Your task to perform on an android device: Search for hotels in Washington DC Image 0: 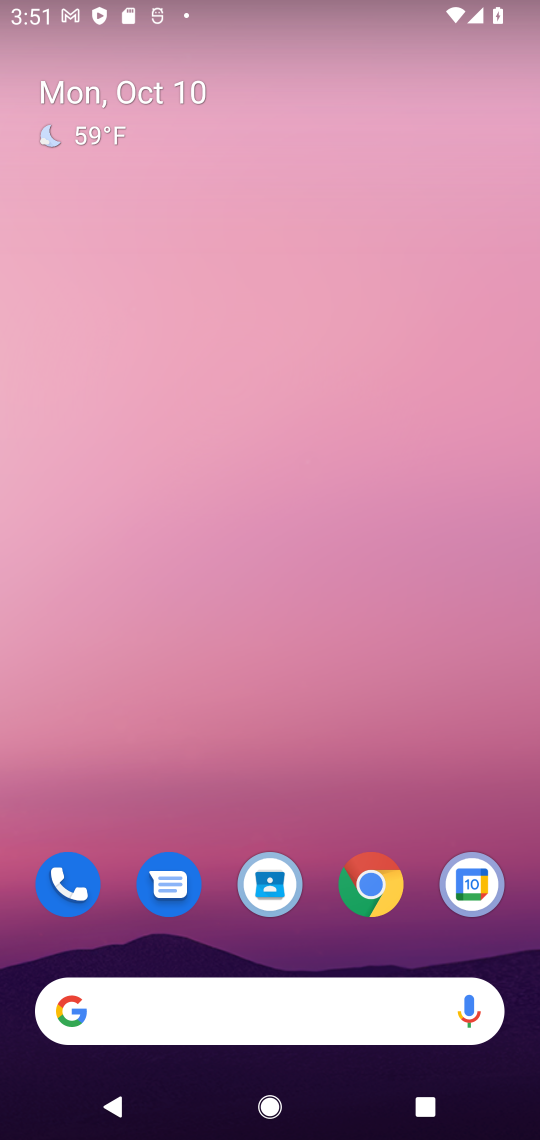
Step 0: click (366, 896)
Your task to perform on an android device: Search for hotels in Washington DC Image 1: 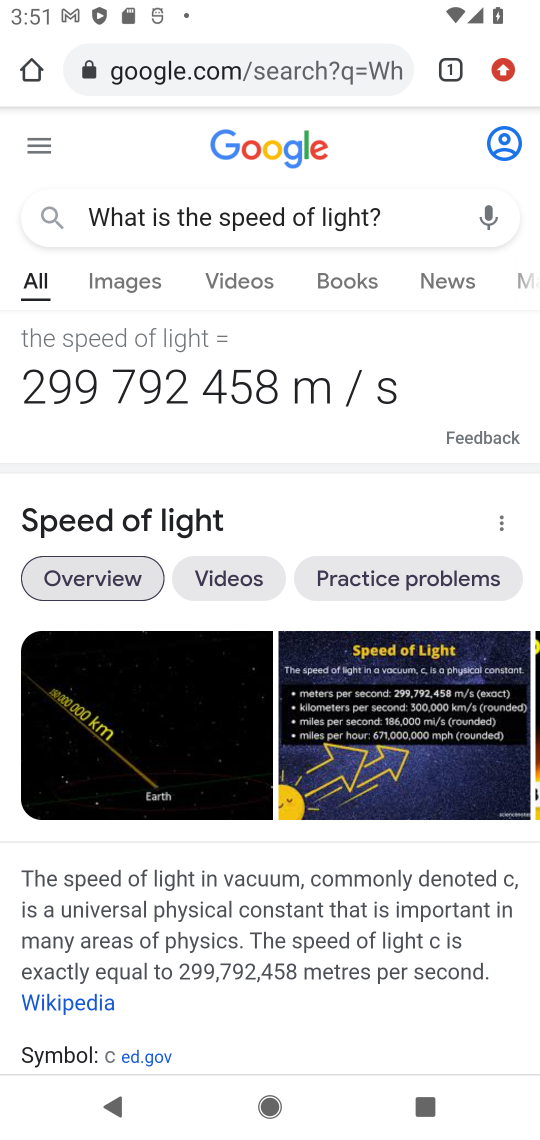
Step 1: click (203, 73)
Your task to perform on an android device: Search for hotels in Washington DC Image 2: 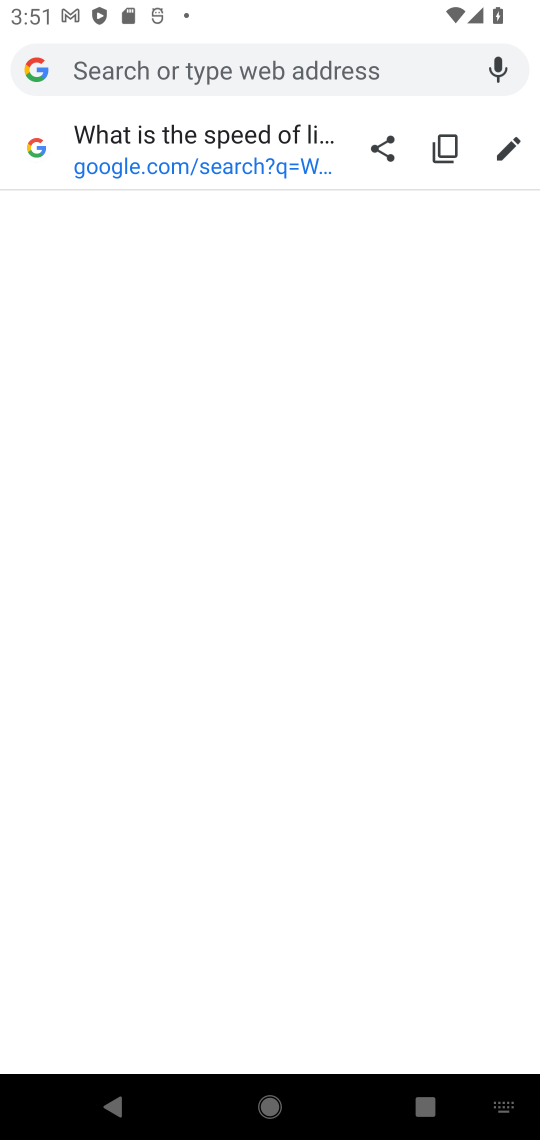
Step 2: type " hotels in Washington DC"
Your task to perform on an android device: Search for hotels in Washington DC Image 3: 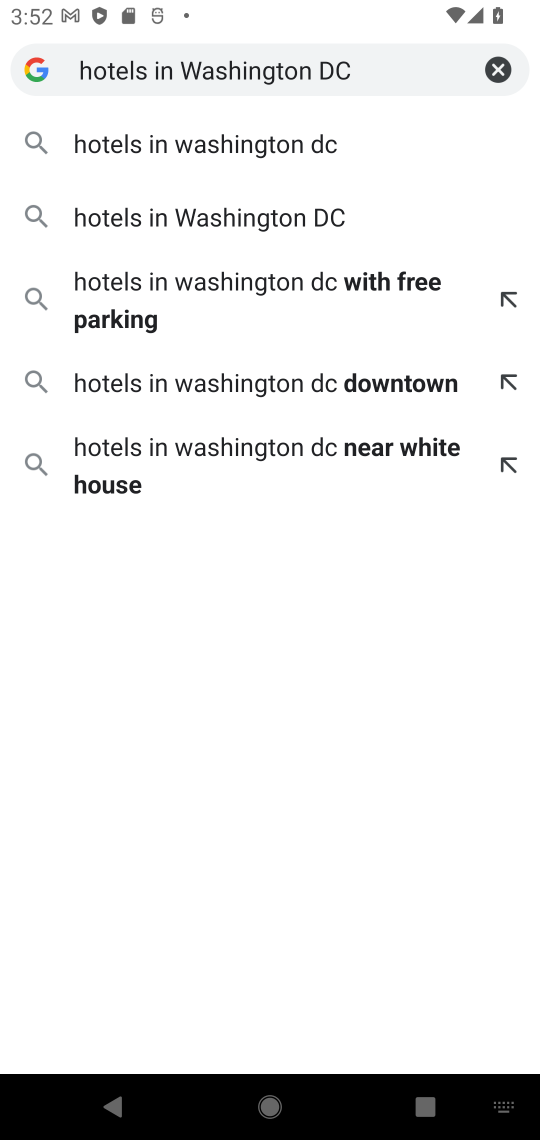
Step 3: click (136, 151)
Your task to perform on an android device: Search for hotels in Washington DC Image 4: 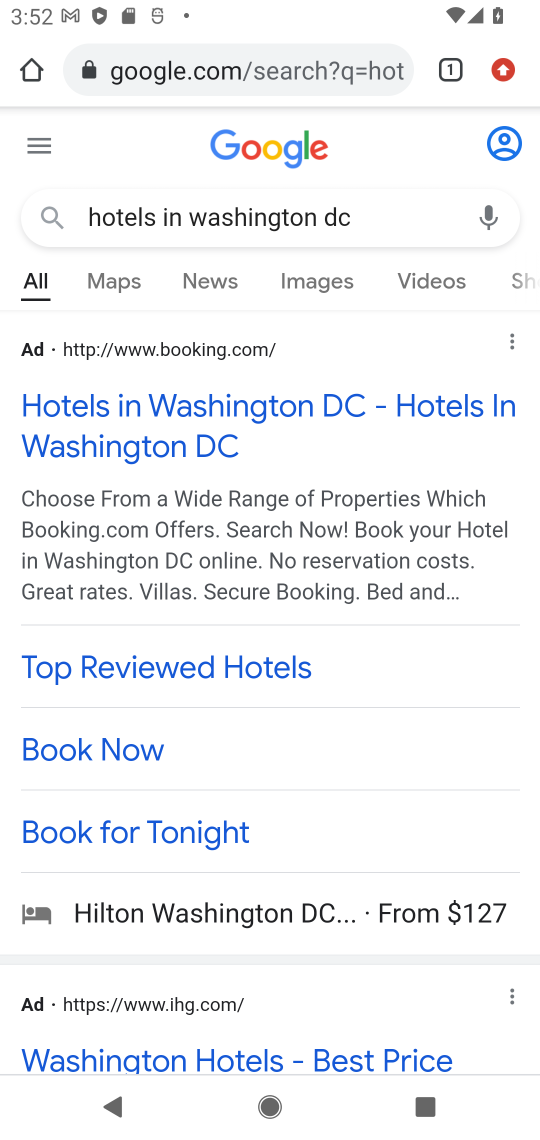
Step 4: click (136, 452)
Your task to perform on an android device: Search for hotels in Washington DC Image 5: 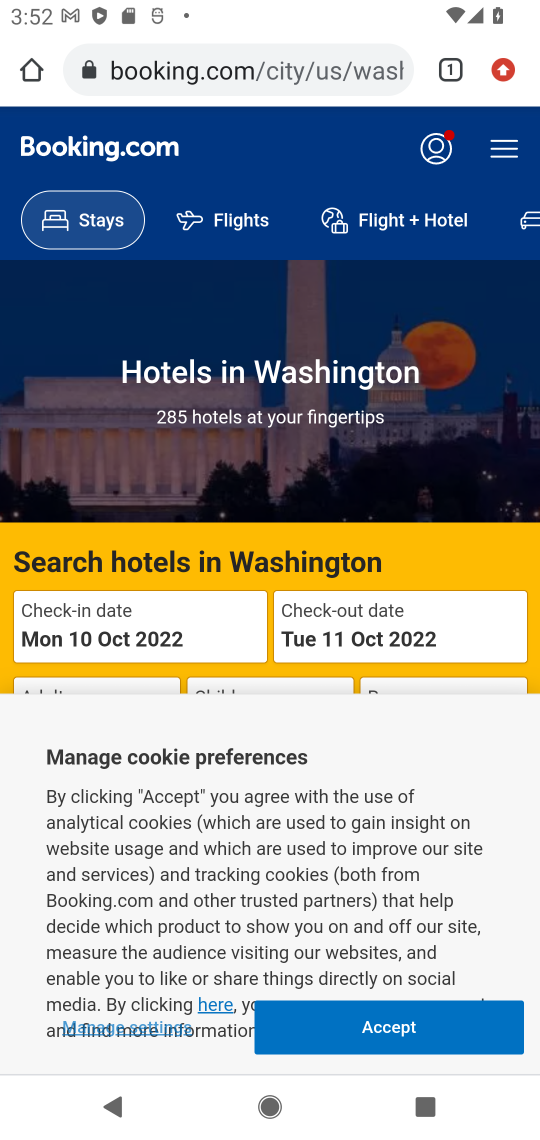
Step 5: task complete